Your task to perform on an android device: turn off notifications in google photos Image 0: 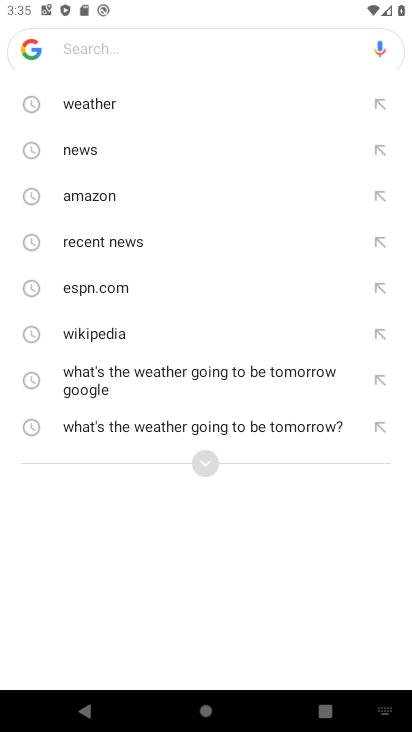
Step 0: press home button
Your task to perform on an android device: turn off notifications in google photos Image 1: 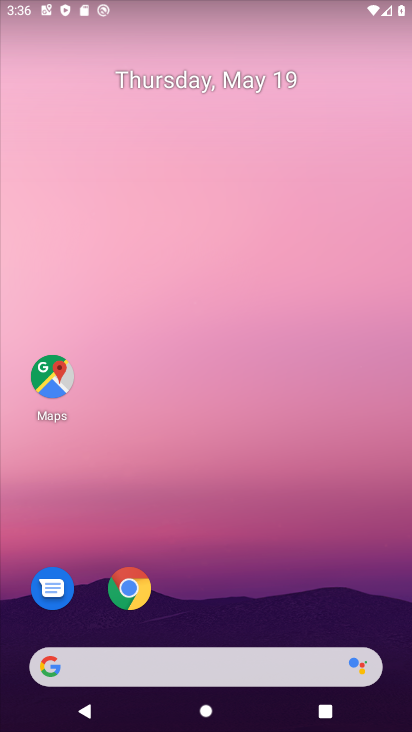
Step 1: drag from (254, 124) to (299, 27)
Your task to perform on an android device: turn off notifications in google photos Image 2: 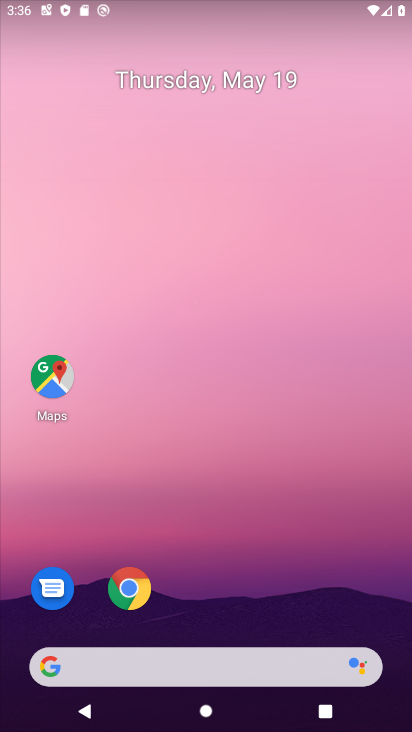
Step 2: drag from (184, 622) to (228, 10)
Your task to perform on an android device: turn off notifications in google photos Image 3: 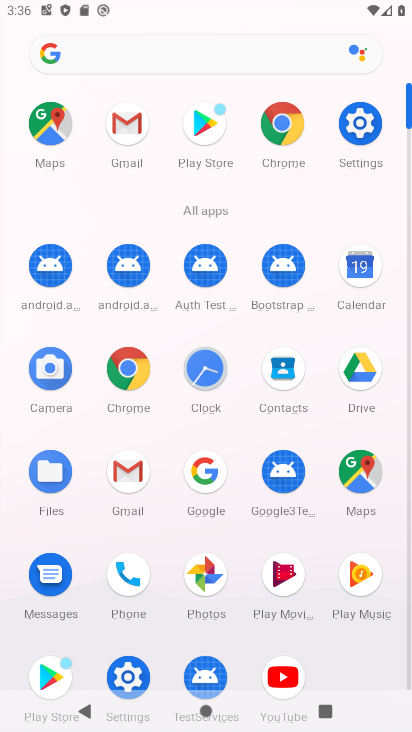
Step 3: click (201, 577)
Your task to perform on an android device: turn off notifications in google photos Image 4: 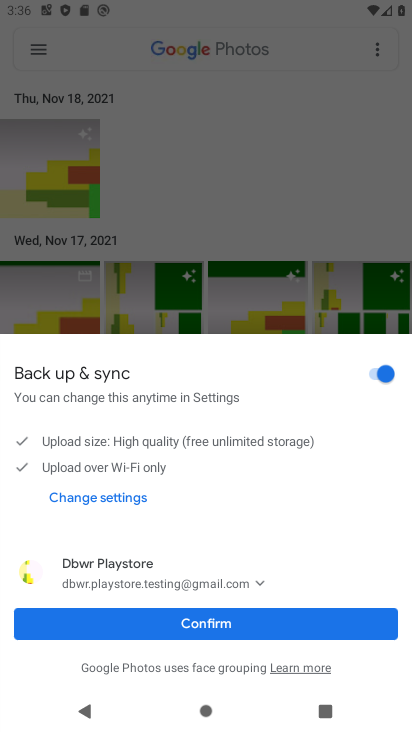
Step 4: click (215, 622)
Your task to perform on an android device: turn off notifications in google photos Image 5: 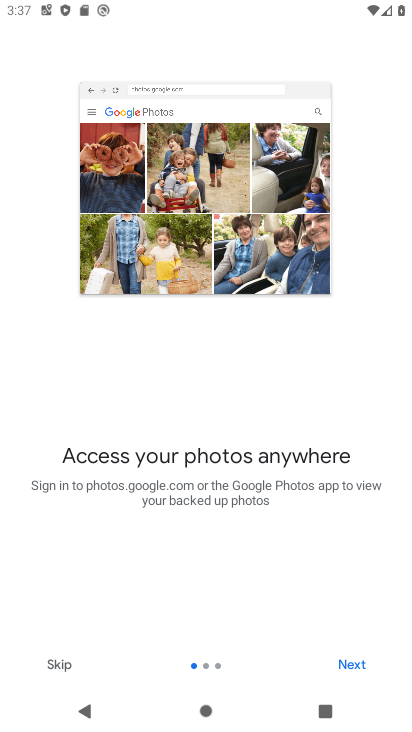
Step 5: click (362, 658)
Your task to perform on an android device: turn off notifications in google photos Image 6: 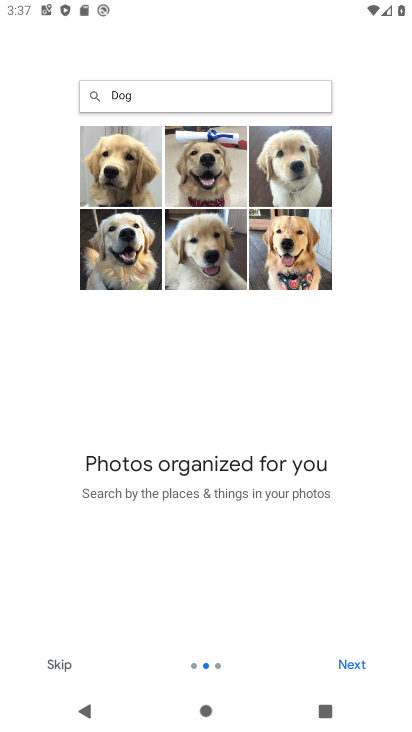
Step 6: click (362, 658)
Your task to perform on an android device: turn off notifications in google photos Image 7: 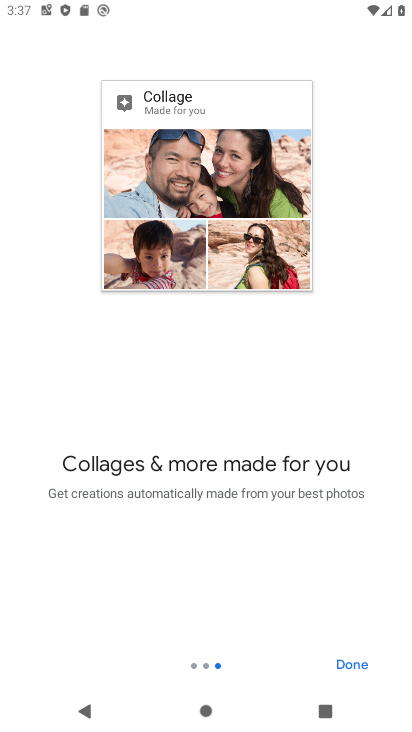
Step 7: click (362, 658)
Your task to perform on an android device: turn off notifications in google photos Image 8: 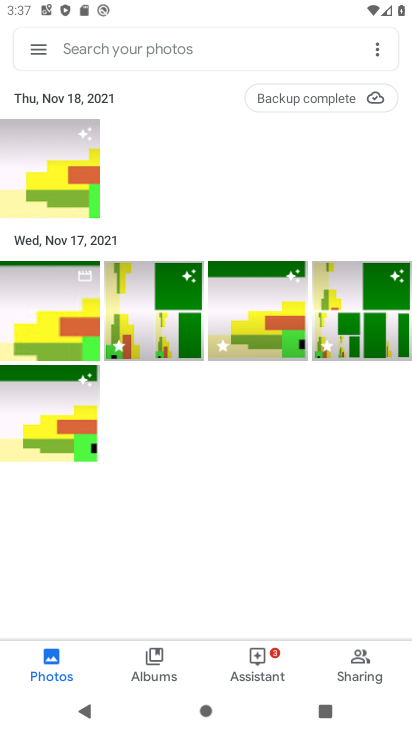
Step 8: click (39, 41)
Your task to perform on an android device: turn off notifications in google photos Image 9: 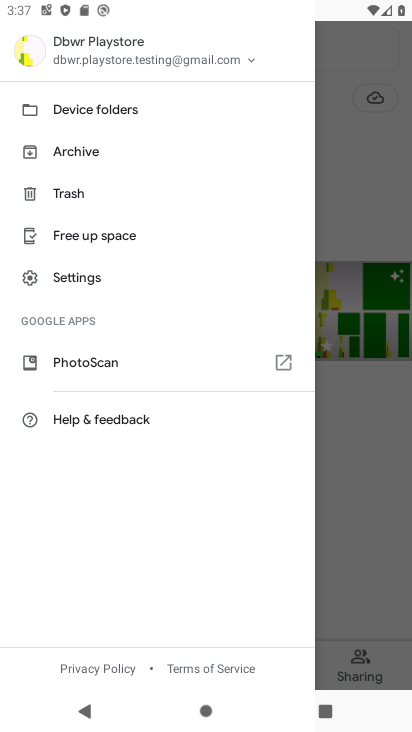
Step 9: click (96, 282)
Your task to perform on an android device: turn off notifications in google photos Image 10: 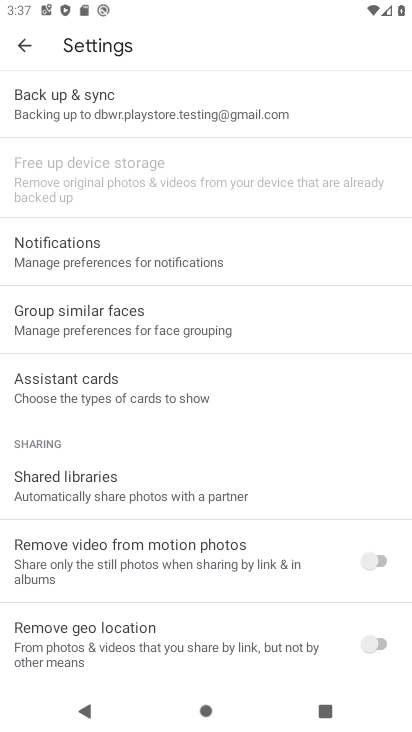
Step 10: click (96, 282)
Your task to perform on an android device: turn off notifications in google photos Image 11: 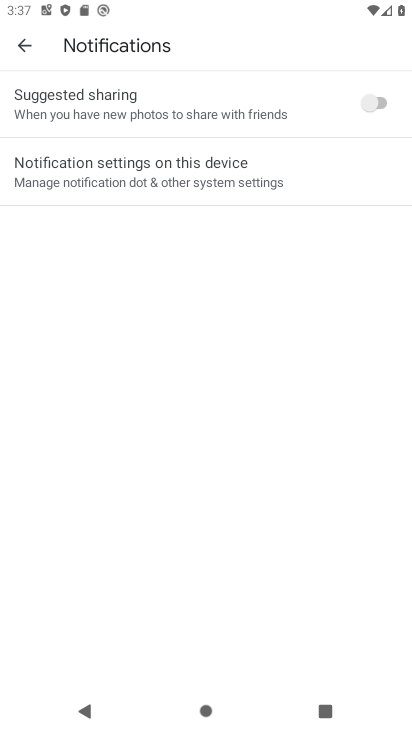
Step 11: click (139, 185)
Your task to perform on an android device: turn off notifications in google photos Image 12: 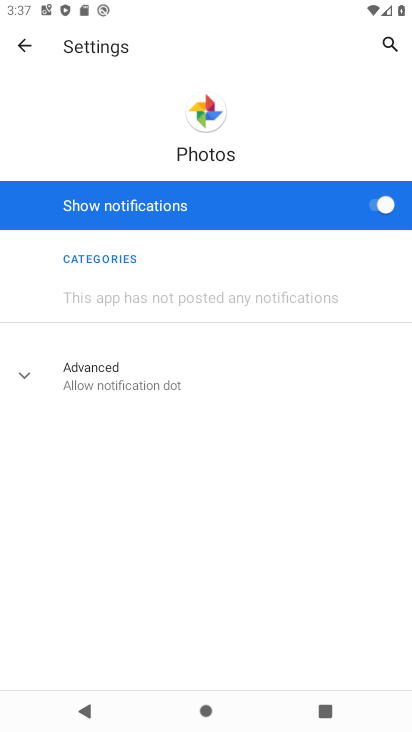
Step 12: click (382, 210)
Your task to perform on an android device: turn off notifications in google photos Image 13: 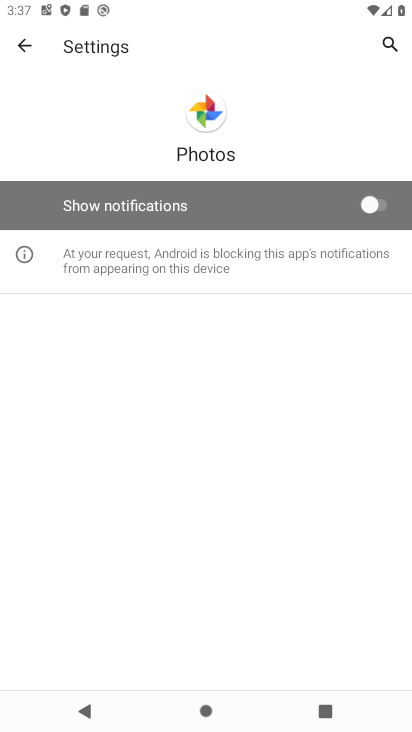
Step 13: task complete